Your task to perform on an android device: allow cookies in the chrome app Image 0: 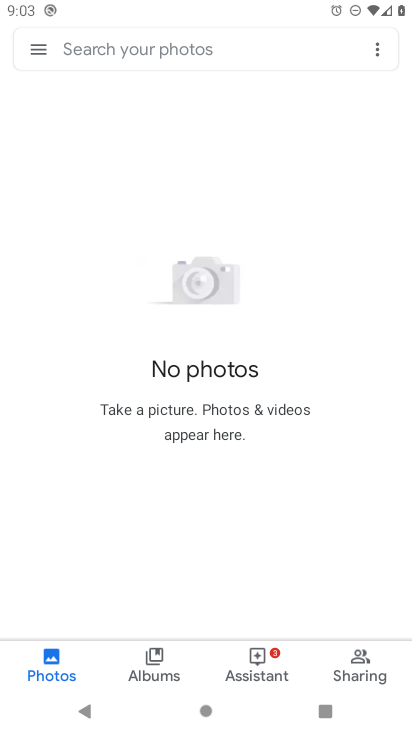
Step 0: press home button
Your task to perform on an android device: allow cookies in the chrome app Image 1: 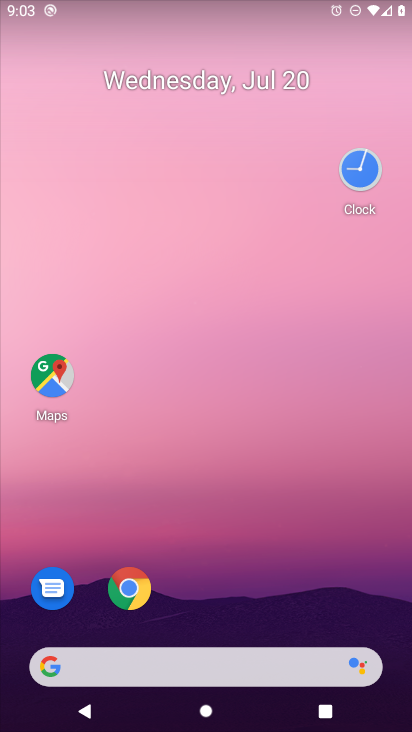
Step 1: click (115, 593)
Your task to perform on an android device: allow cookies in the chrome app Image 2: 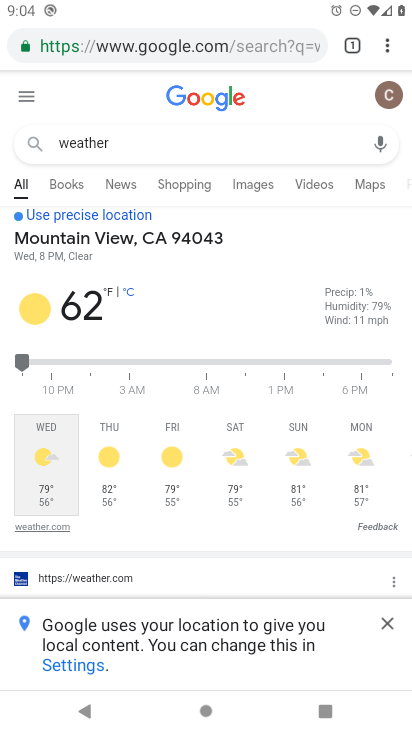
Step 2: click (385, 40)
Your task to perform on an android device: allow cookies in the chrome app Image 3: 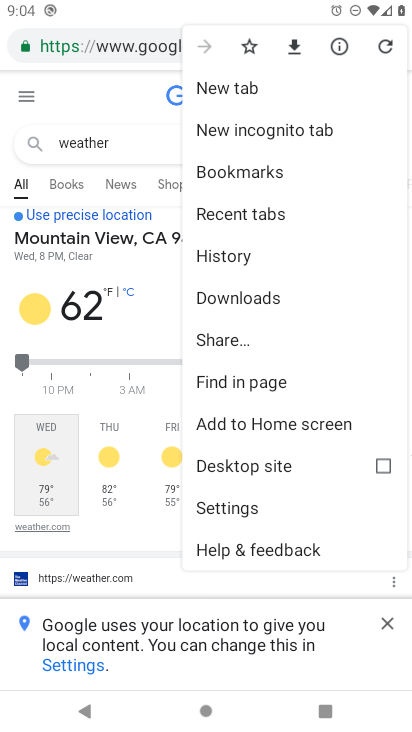
Step 3: click (229, 499)
Your task to perform on an android device: allow cookies in the chrome app Image 4: 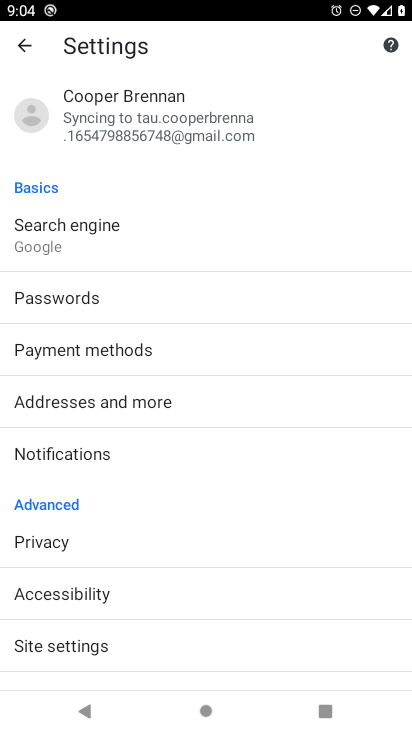
Step 4: click (60, 638)
Your task to perform on an android device: allow cookies in the chrome app Image 5: 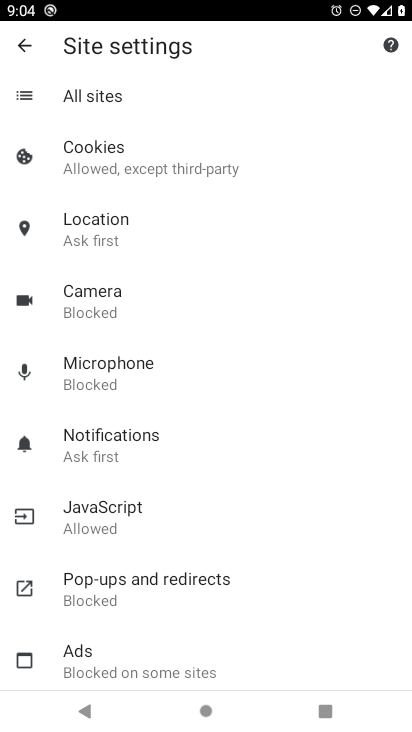
Step 5: click (139, 141)
Your task to perform on an android device: allow cookies in the chrome app Image 6: 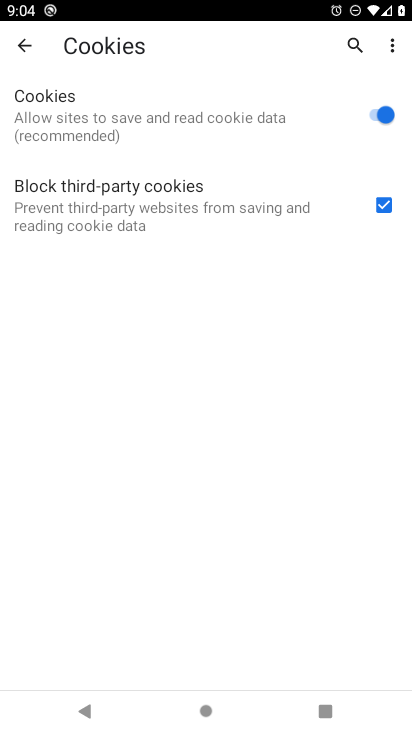
Step 6: task complete